Your task to perform on an android device: Do I have any events tomorrow? Image 0: 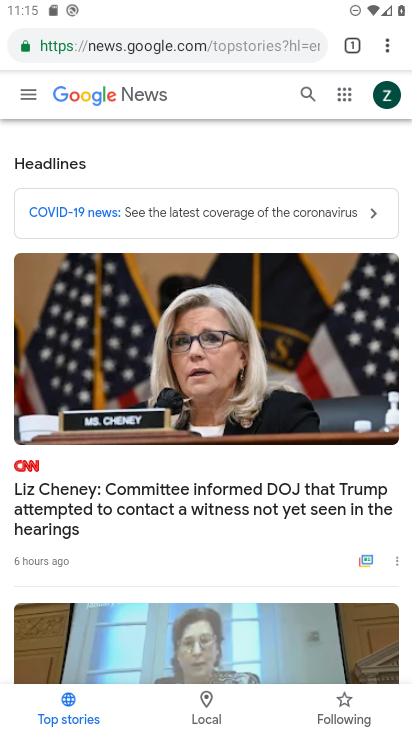
Step 0: press home button
Your task to perform on an android device: Do I have any events tomorrow? Image 1: 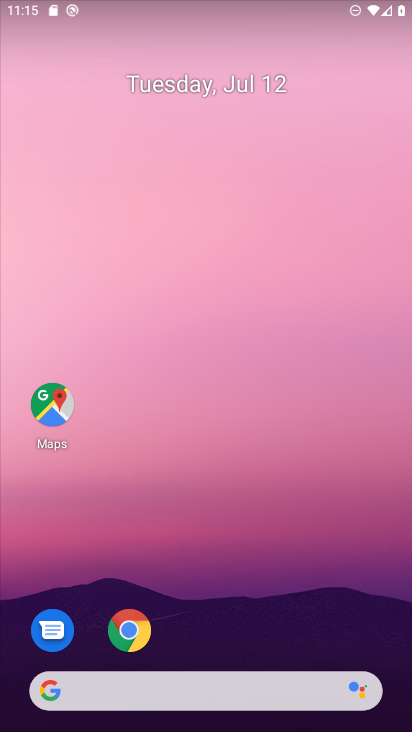
Step 1: drag from (355, 629) to (245, 111)
Your task to perform on an android device: Do I have any events tomorrow? Image 2: 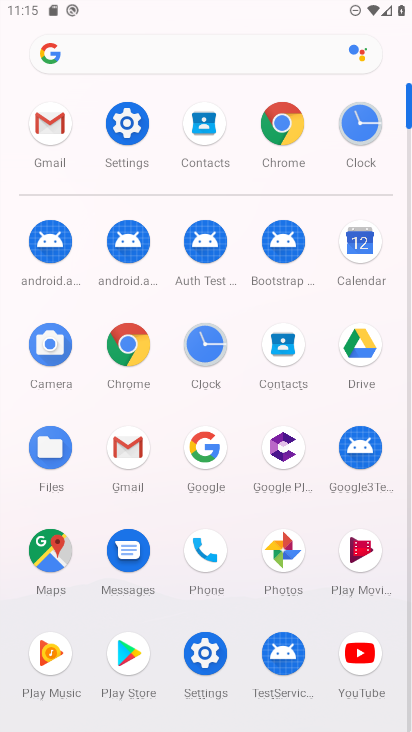
Step 2: click (363, 255)
Your task to perform on an android device: Do I have any events tomorrow? Image 3: 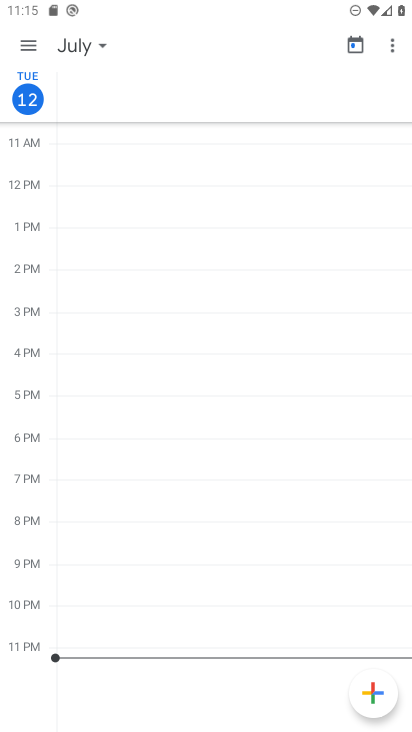
Step 3: click (88, 45)
Your task to perform on an android device: Do I have any events tomorrow? Image 4: 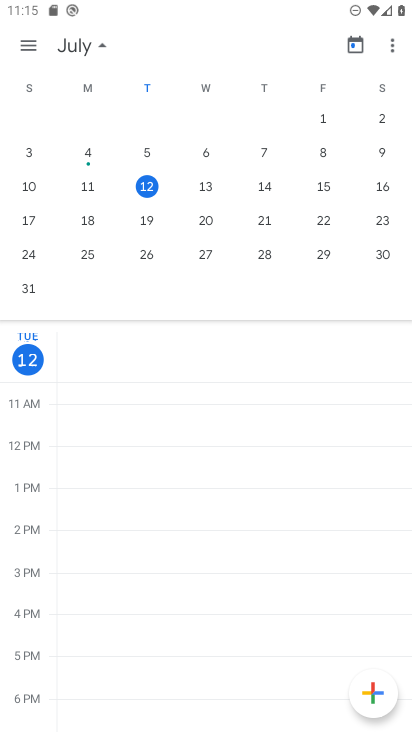
Step 4: click (209, 195)
Your task to perform on an android device: Do I have any events tomorrow? Image 5: 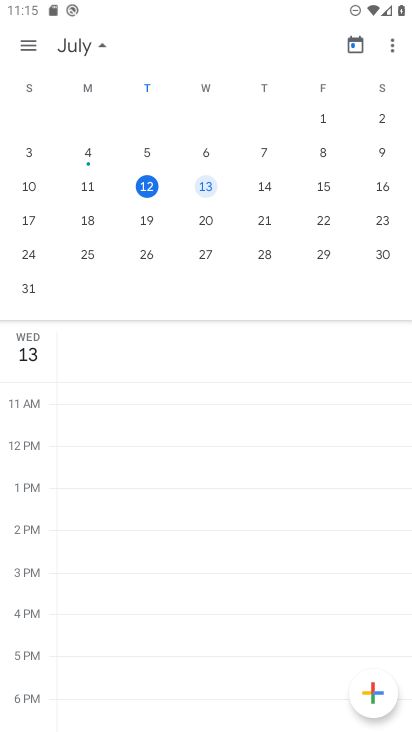
Step 5: task complete